Your task to perform on an android device: toggle translation in the chrome app Image 0: 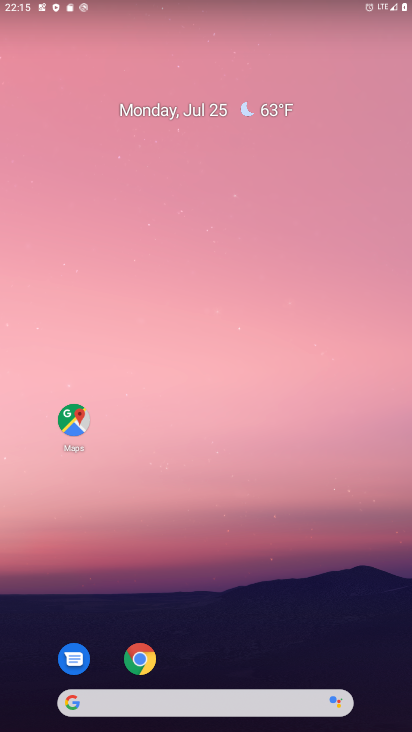
Step 0: click (139, 658)
Your task to perform on an android device: toggle translation in the chrome app Image 1: 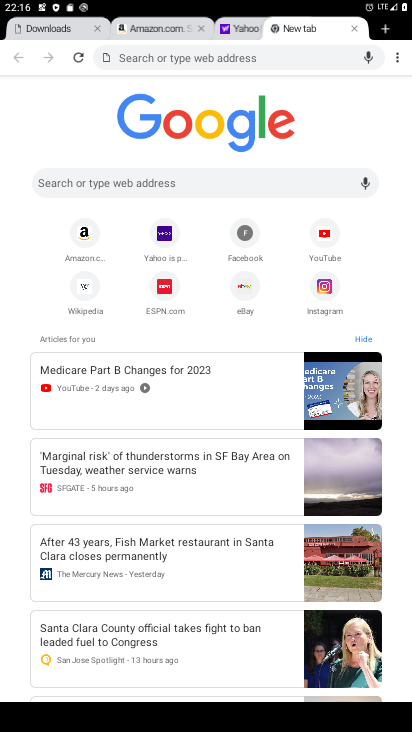
Step 1: click (398, 62)
Your task to perform on an android device: toggle translation in the chrome app Image 2: 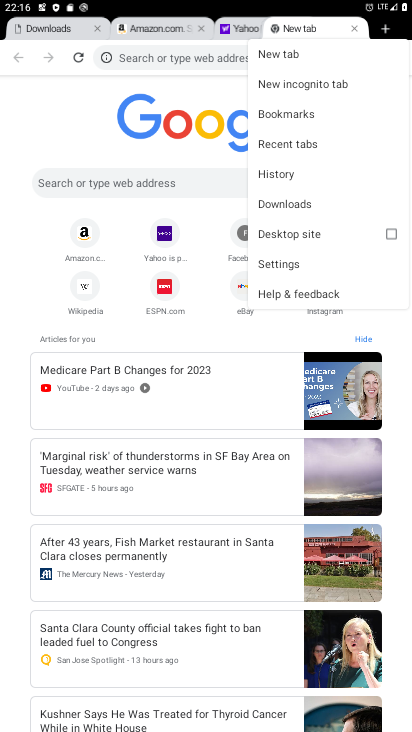
Step 2: click (291, 264)
Your task to perform on an android device: toggle translation in the chrome app Image 3: 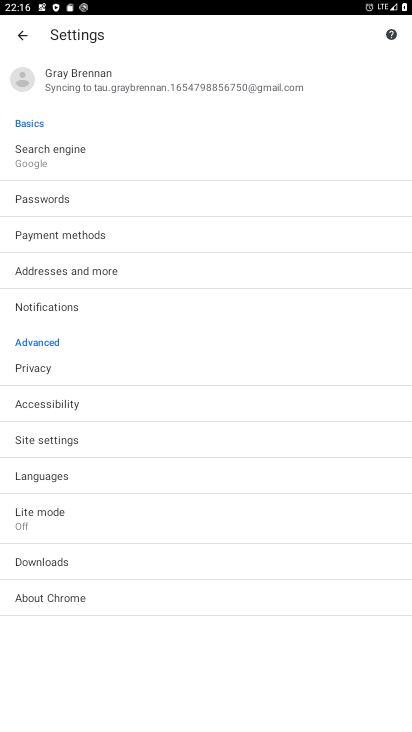
Step 3: click (47, 481)
Your task to perform on an android device: toggle translation in the chrome app Image 4: 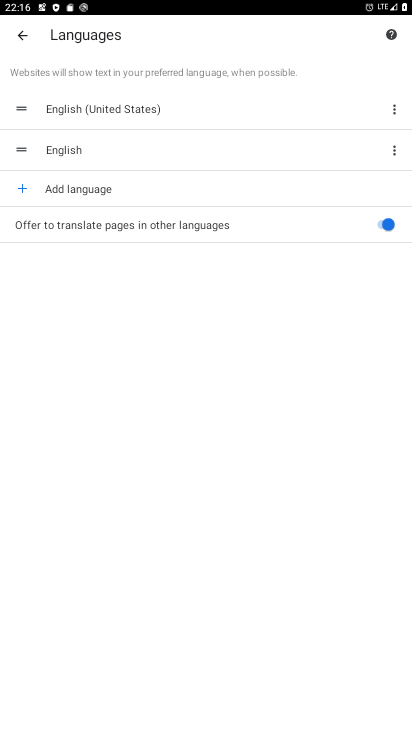
Step 4: click (388, 221)
Your task to perform on an android device: toggle translation in the chrome app Image 5: 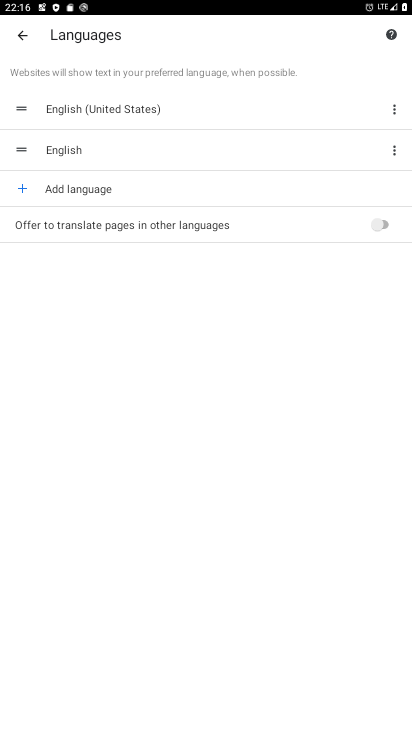
Step 5: task complete